Your task to perform on an android device: Go to notification settings Image 0: 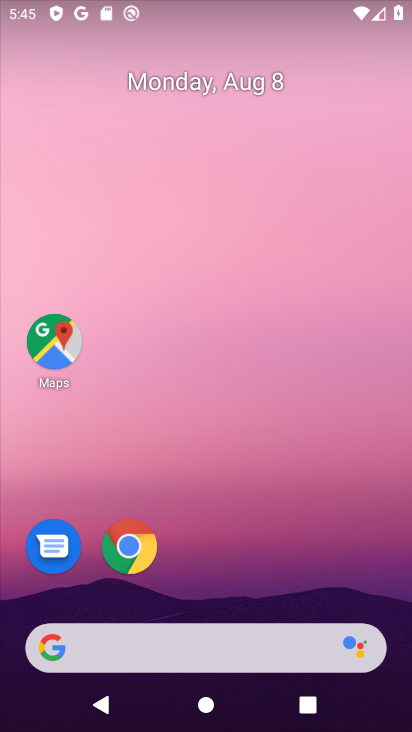
Step 0: drag from (211, 574) to (225, 187)
Your task to perform on an android device: Go to notification settings Image 1: 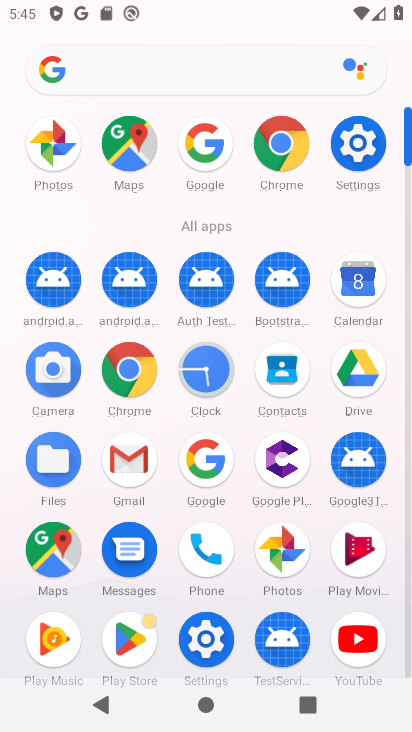
Step 1: click (340, 146)
Your task to perform on an android device: Go to notification settings Image 2: 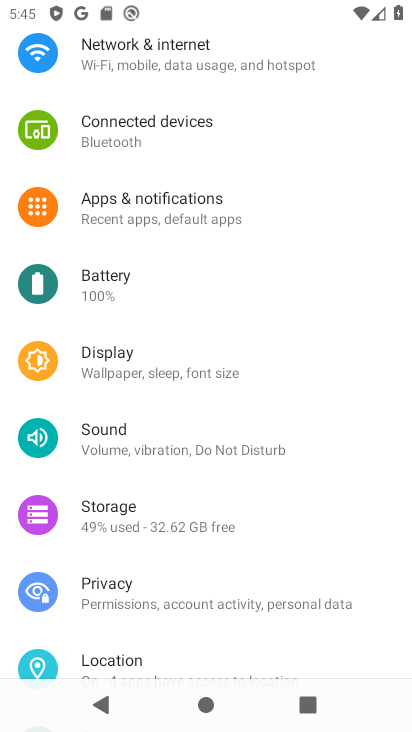
Step 2: click (231, 197)
Your task to perform on an android device: Go to notification settings Image 3: 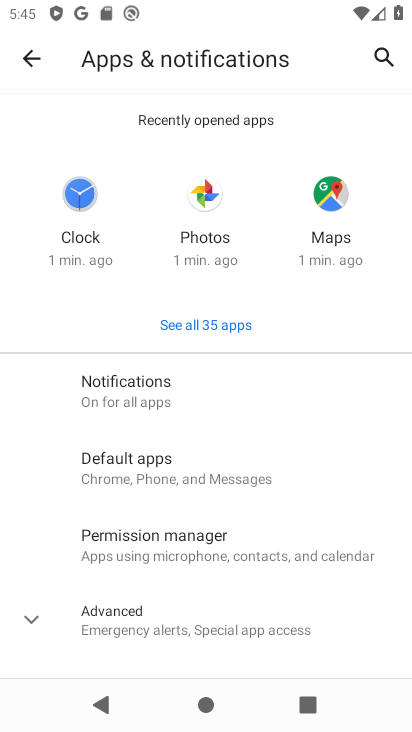
Step 3: click (193, 384)
Your task to perform on an android device: Go to notification settings Image 4: 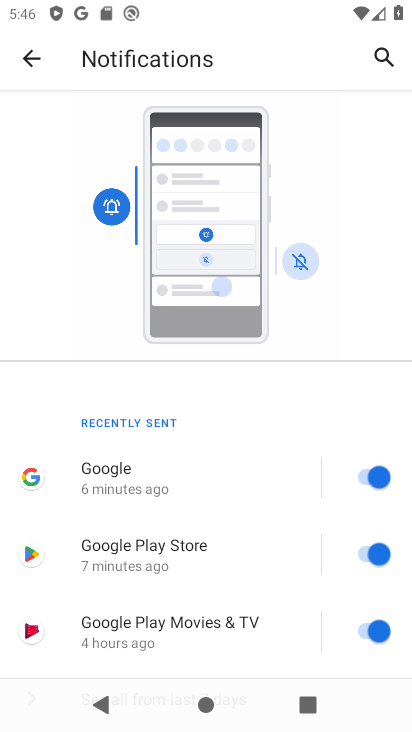
Step 4: task complete